Your task to perform on an android device: Turn on the flashlight Image 0: 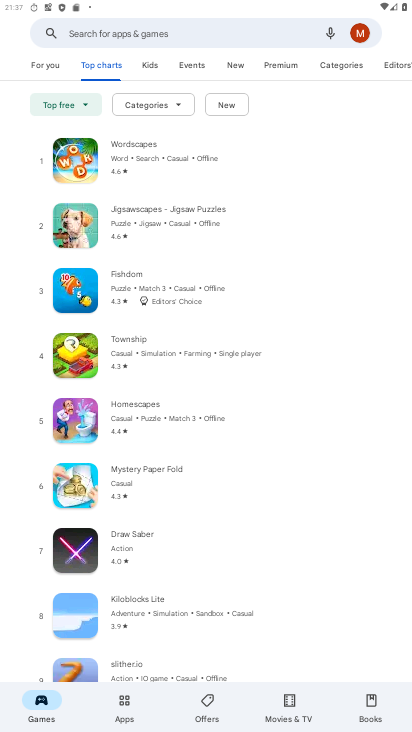
Step 0: press home button
Your task to perform on an android device: Turn on the flashlight Image 1: 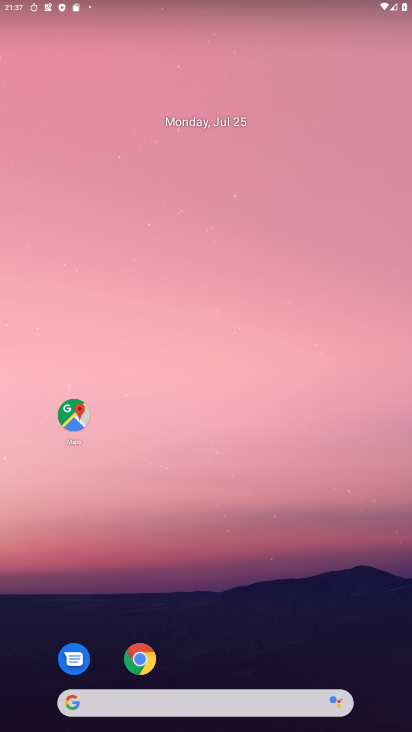
Step 1: drag from (221, 652) to (236, 209)
Your task to perform on an android device: Turn on the flashlight Image 2: 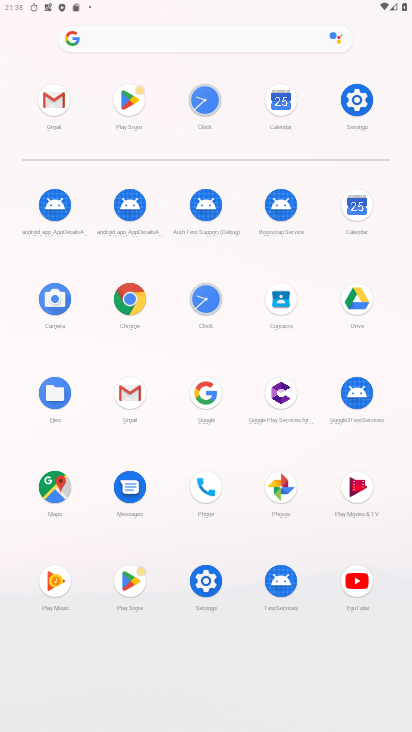
Step 2: click (343, 110)
Your task to perform on an android device: Turn on the flashlight Image 3: 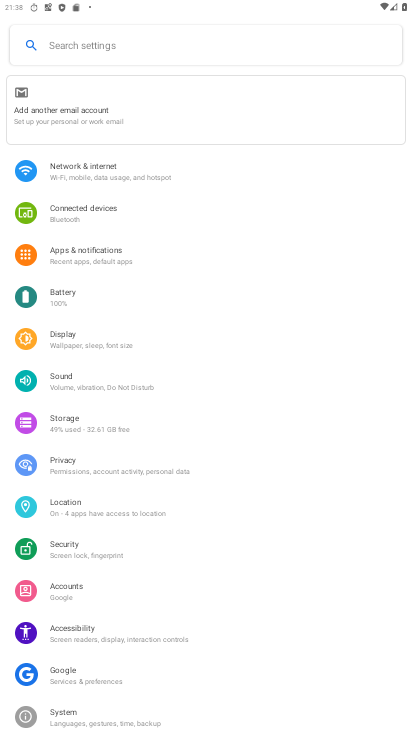
Step 3: task complete